Your task to perform on an android device: turn on location history Image 0: 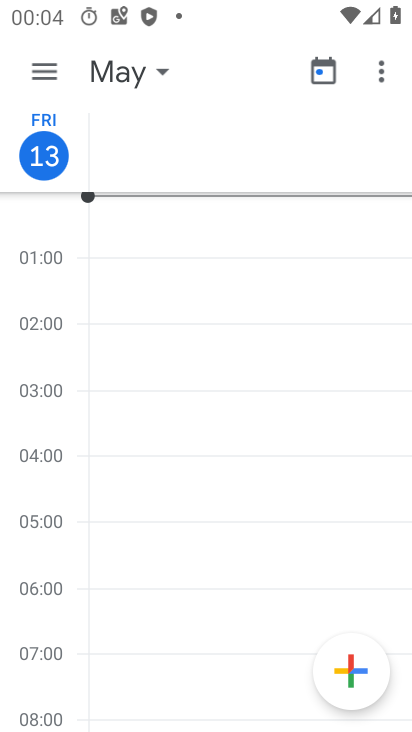
Step 0: press home button
Your task to perform on an android device: turn on location history Image 1: 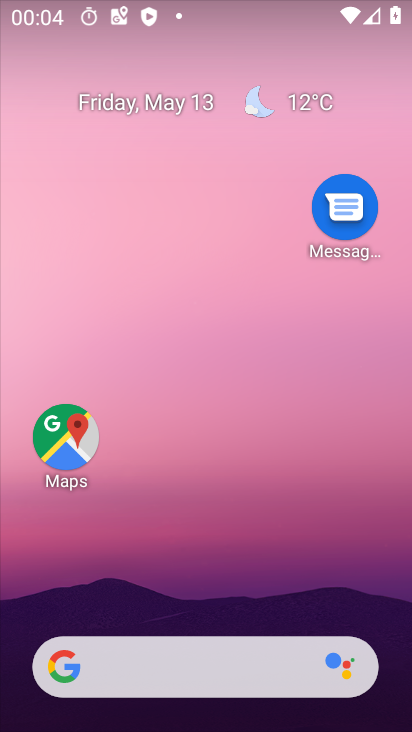
Step 1: drag from (254, 480) to (265, 68)
Your task to perform on an android device: turn on location history Image 2: 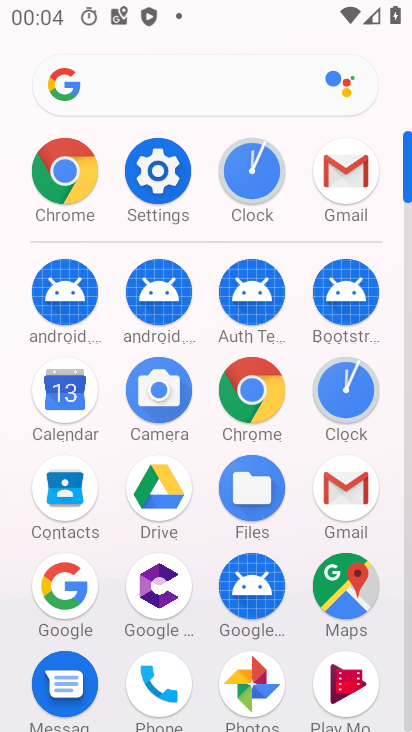
Step 2: click (358, 600)
Your task to perform on an android device: turn on location history Image 3: 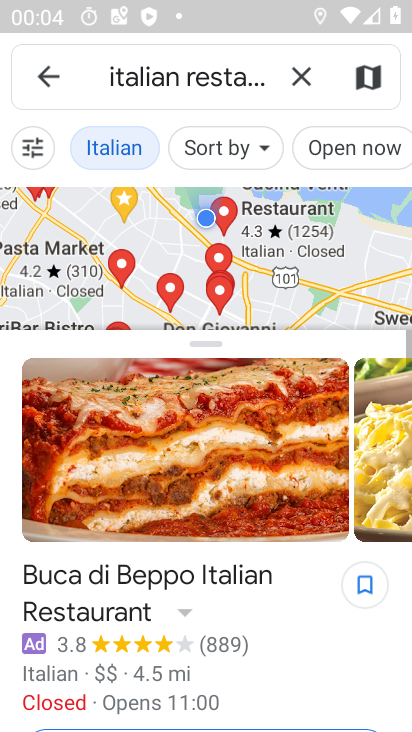
Step 3: click (52, 78)
Your task to perform on an android device: turn on location history Image 4: 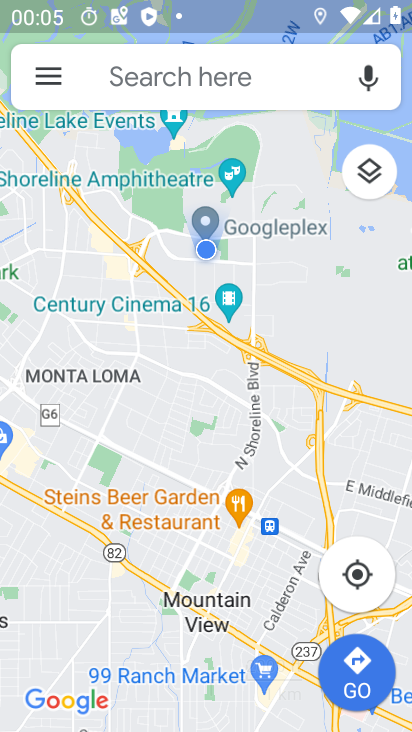
Step 4: click (53, 75)
Your task to perform on an android device: turn on location history Image 5: 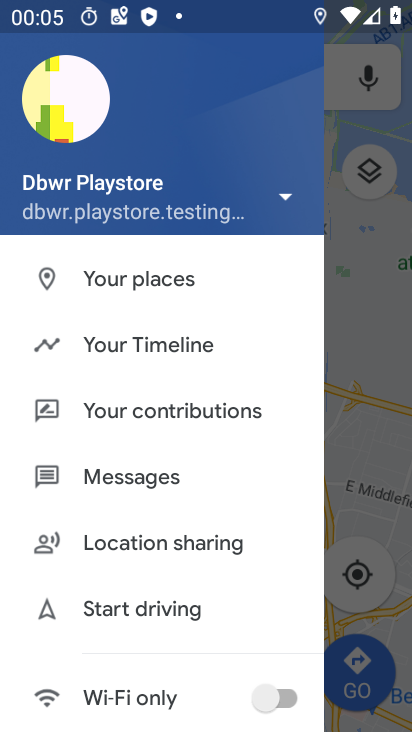
Step 5: click (182, 338)
Your task to perform on an android device: turn on location history Image 6: 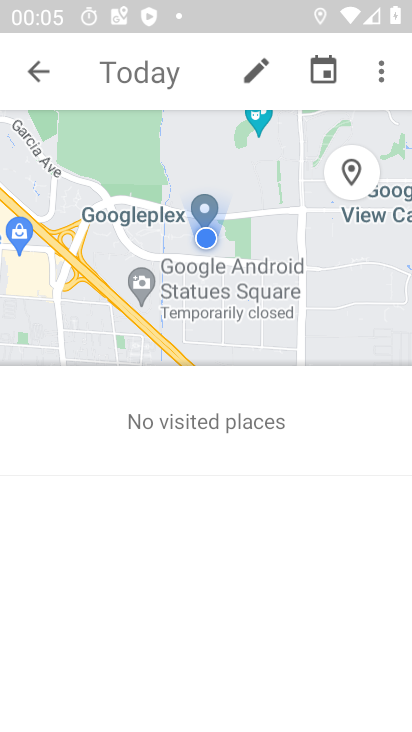
Step 6: click (380, 71)
Your task to perform on an android device: turn on location history Image 7: 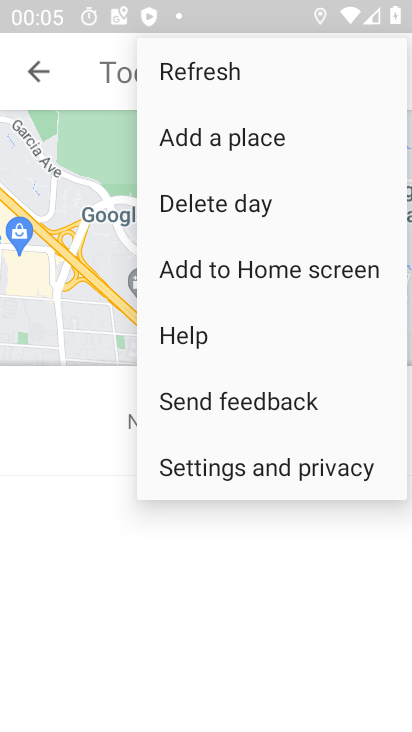
Step 7: click (224, 465)
Your task to perform on an android device: turn on location history Image 8: 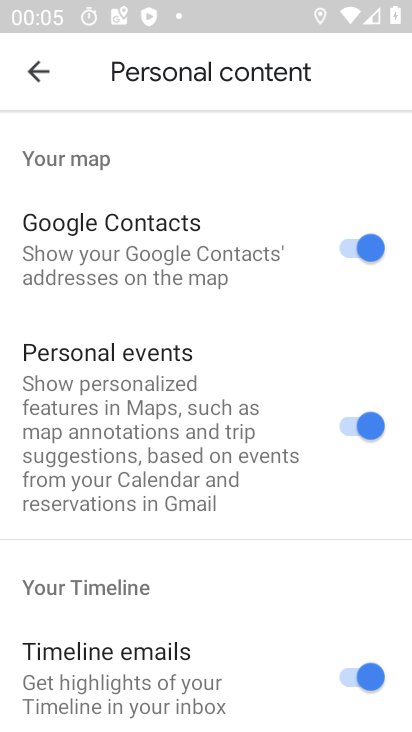
Step 8: drag from (243, 583) to (231, 134)
Your task to perform on an android device: turn on location history Image 9: 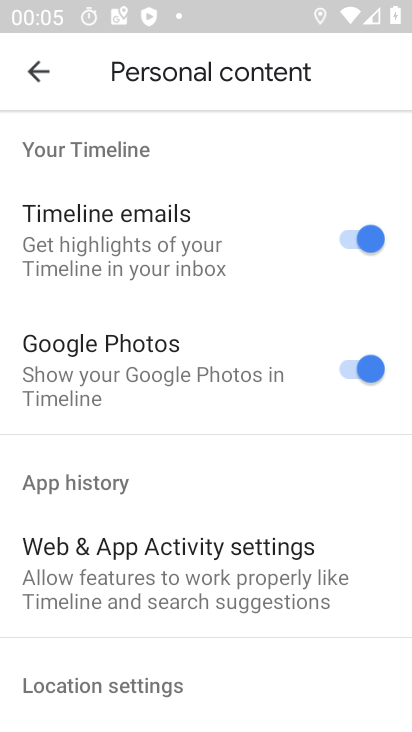
Step 9: drag from (282, 591) to (270, 171)
Your task to perform on an android device: turn on location history Image 10: 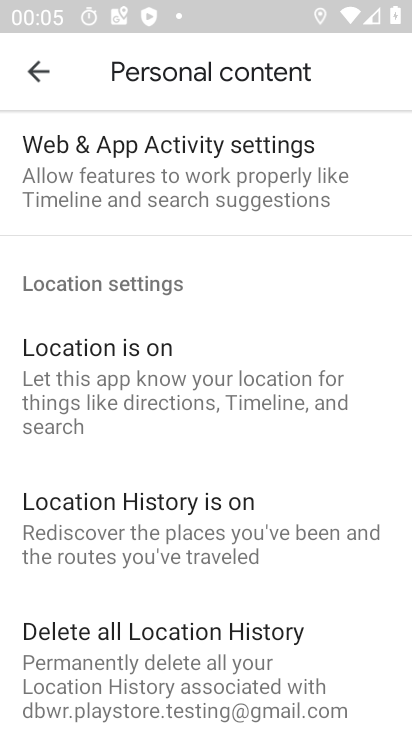
Step 10: click (215, 512)
Your task to perform on an android device: turn on location history Image 11: 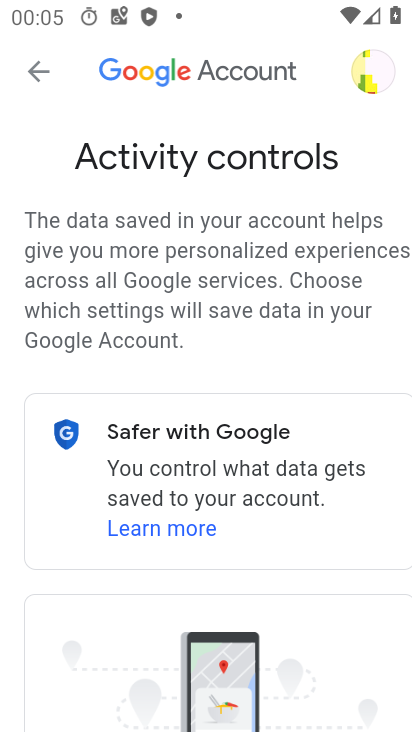
Step 11: task complete